Your task to perform on an android device: Open calendar and show me the third week of next month Image 0: 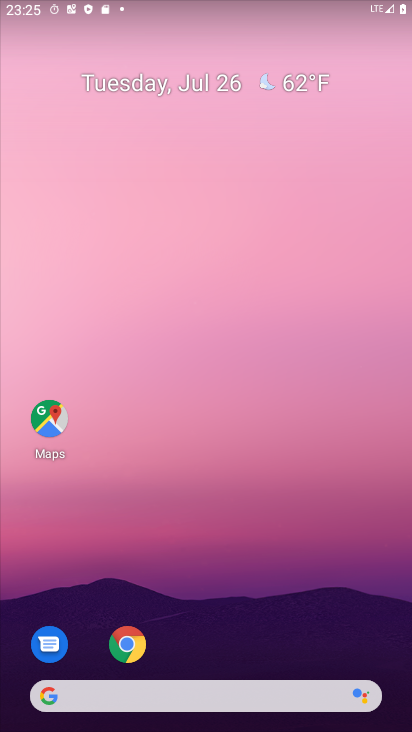
Step 0: drag from (244, 643) to (204, 17)
Your task to perform on an android device: Open calendar and show me the third week of next month Image 1: 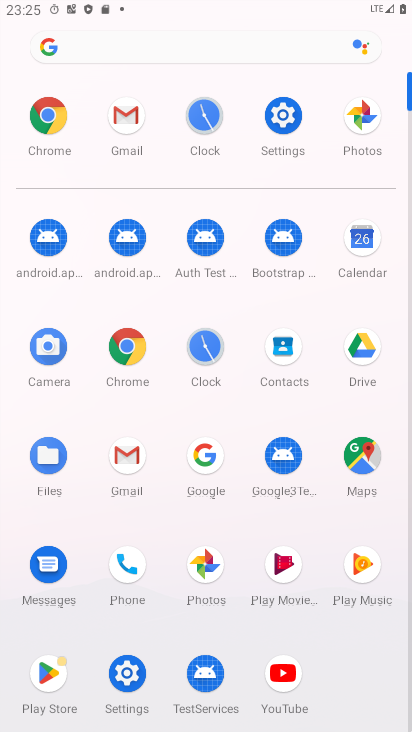
Step 1: click (355, 241)
Your task to perform on an android device: Open calendar and show me the third week of next month Image 2: 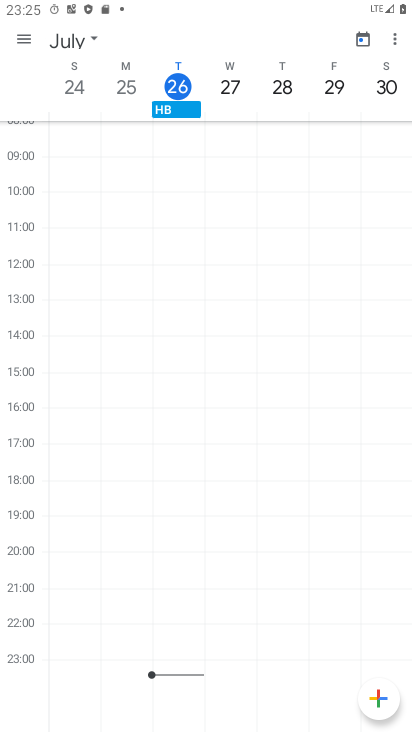
Step 2: click (98, 42)
Your task to perform on an android device: Open calendar and show me the third week of next month Image 3: 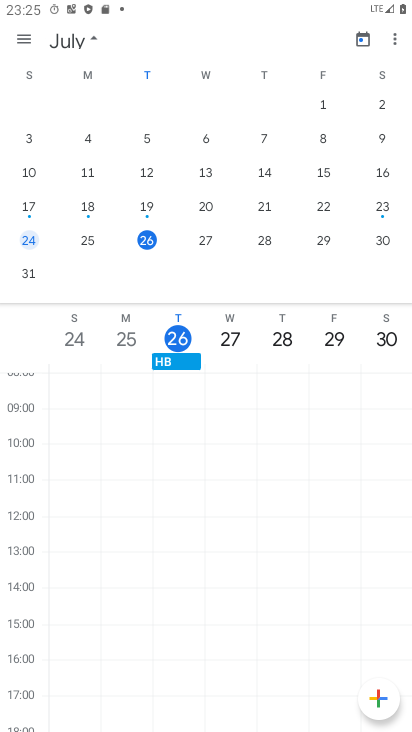
Step 3: drag from (273, 213) to (388, 17)
Your task to perform on an android device: Open calendar and show me the third week of next month Image 4: 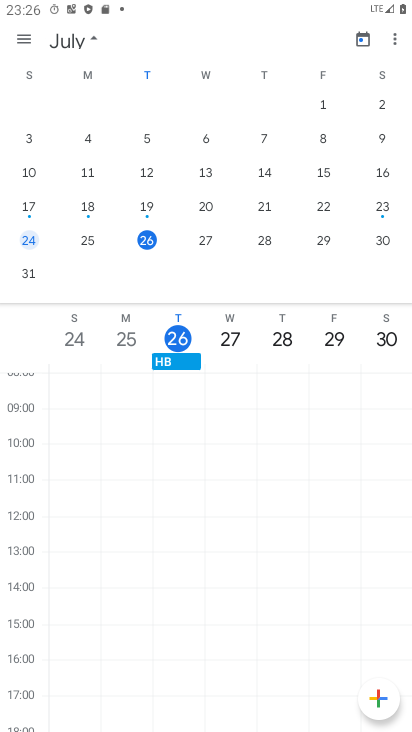
Step 4: drag from (248, 194) to (2, 248)
Your task to perform on an android device: Open calendar and show me the third week of next month Image 5: 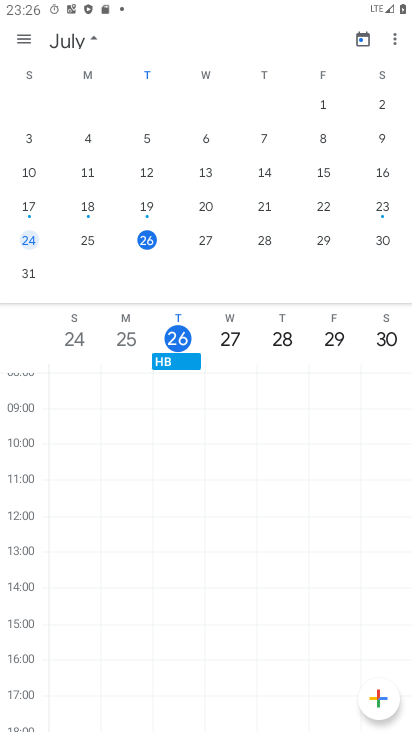
Step 5: drag from (356, 167) to (5, 307)
Your task to perform on an android device: Open calendar and show me the third week of next month Image 6: 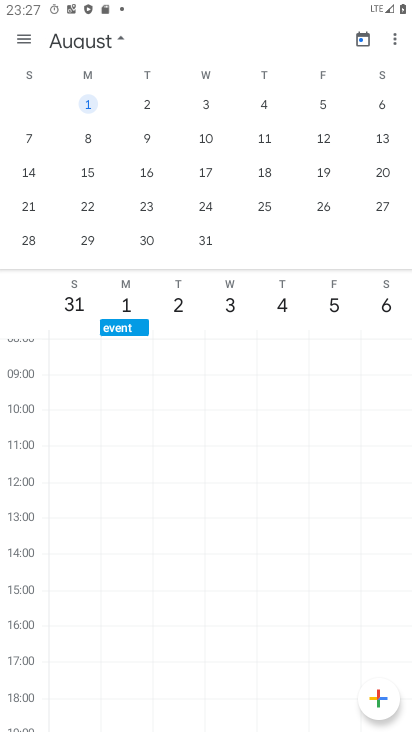
Step 6: click (25, 32)
Your task to perform on an android device: Open calendar and show me the third week of next month Image 7: 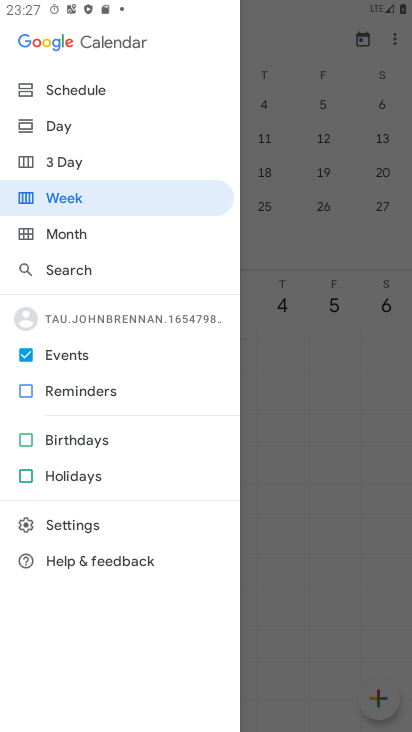
Step 7: click (48, 201)
Your task to perform on an android device: Open calendar and show me the third week of next month Image 8: 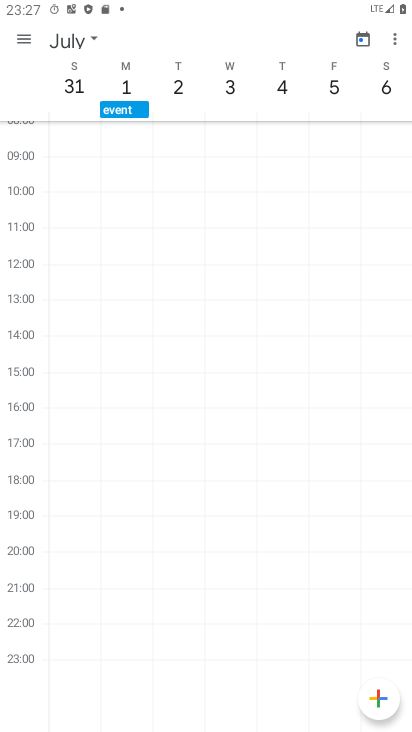
Step 8: task complete